Your task to perform on an android device: Go to wifi settings Image 0: 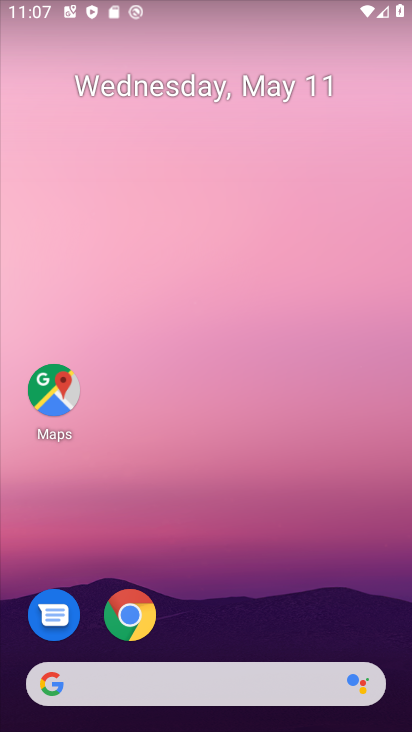
Step 0: drag from (253, 584) to (232, 98)
Your task to perform on an android device: Go to wifi settings Image 1: 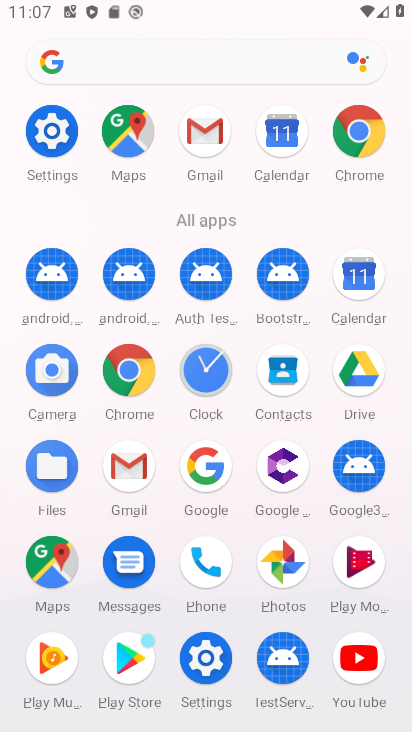
Step 1: click (51, 127)
Your task to perform on an android device: Go to wifi settings Image 2: 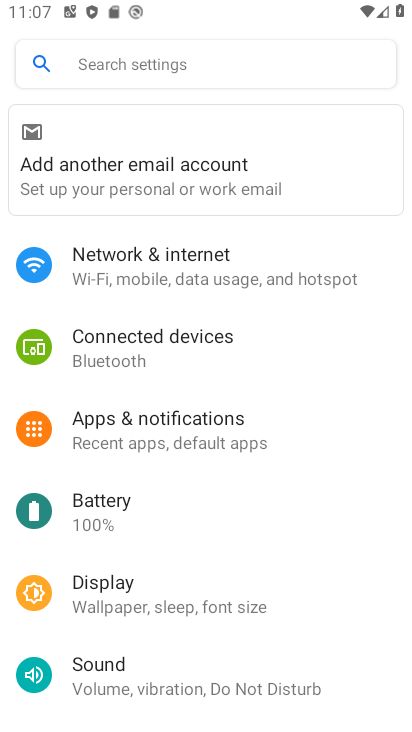
Step 2: click (163, 276)
Your task to perform on an android device: Go to wifi settings Image 3: 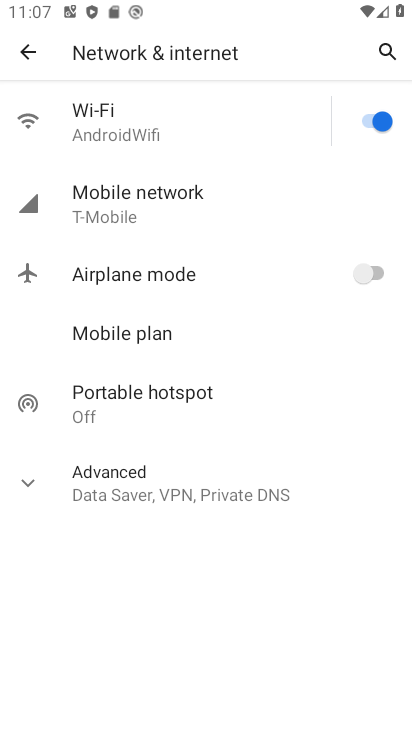
Step 3: click (134, 120)
Your task to perform on an android device: Go to wifi settings Image 4: 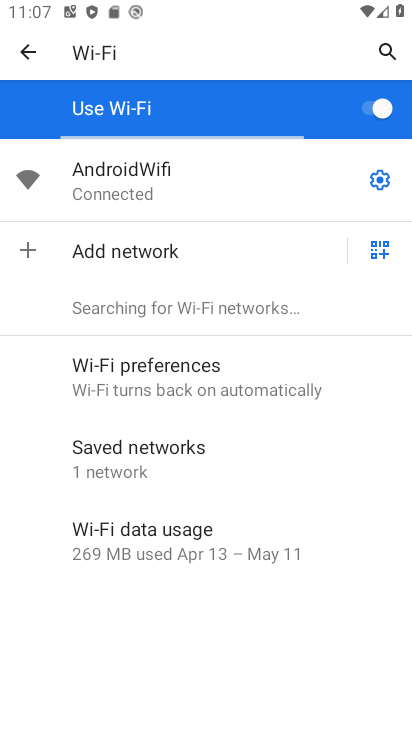
Step 4: task complete